Your task to perform on an android device: Open Google Maps and go to "Timeline" Image 0: 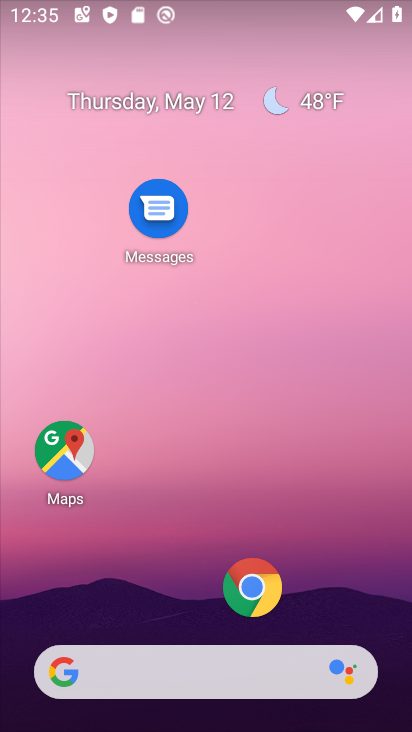
Step 0: click (89, 476)
Your task to perform on an android device: Open Google Maps and go to "Timeline" Image 1: 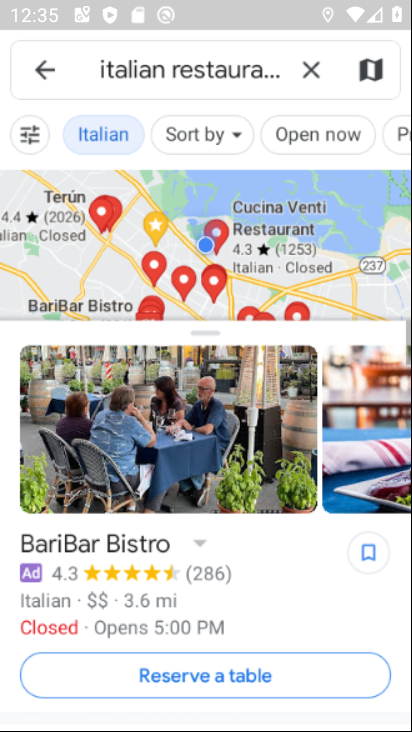
Step 1: click (46, 78)
Your task to perform on an android device: Open Google Maps and go to "Timeline" Image 2: 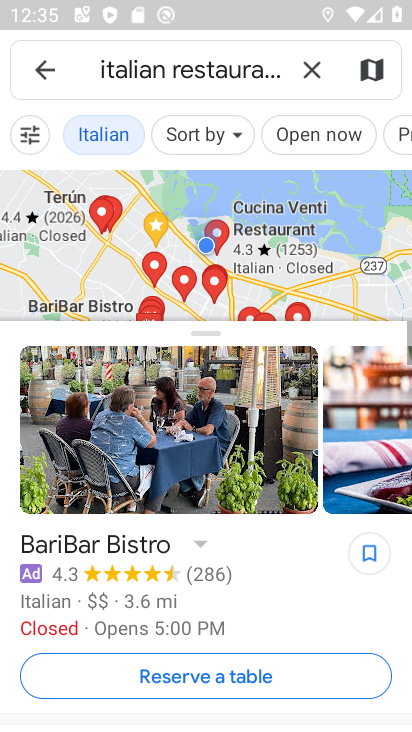
Step 2: click (42, 64)
Your task to perform on an android device: Open Google Maps and go to "Timeline" Image 3: 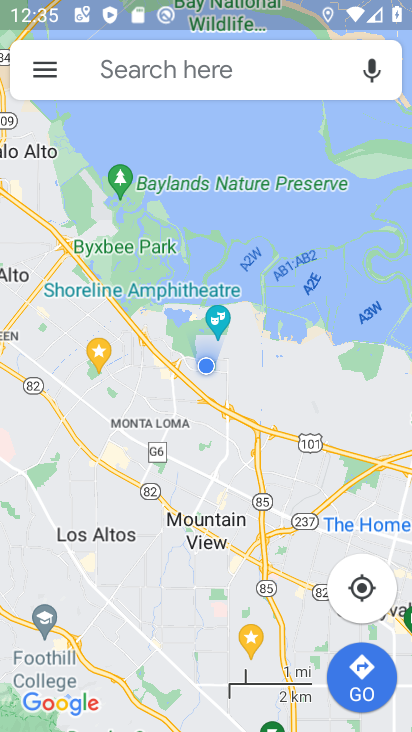
Step 3: click (42, 64)
Your task to perform on an android device: Open Google Maps and go to "Timeline" Image 4: 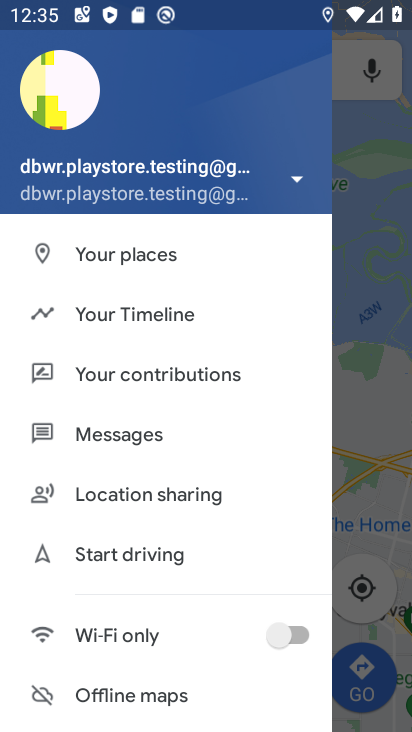
Step 4: click (154, 299)
Your task to perform on an android device: Open Google Maps and go to "Timeline" Image 5: 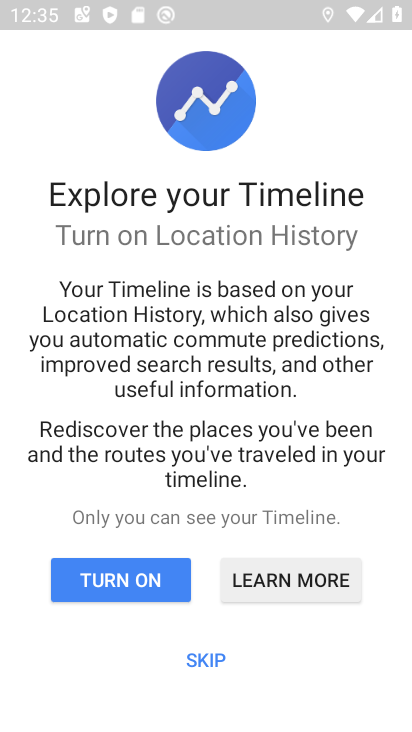
Step 5: click (211, 648)
Your task to perform on an android device: Open Google Maps and go to "Timeline" Image 6: 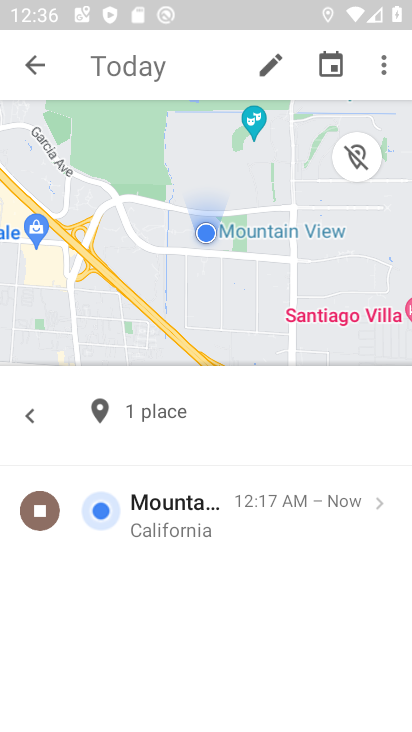
Step 6: task complete